Your task to perform on an android device: empty trash in google photos Image 0: 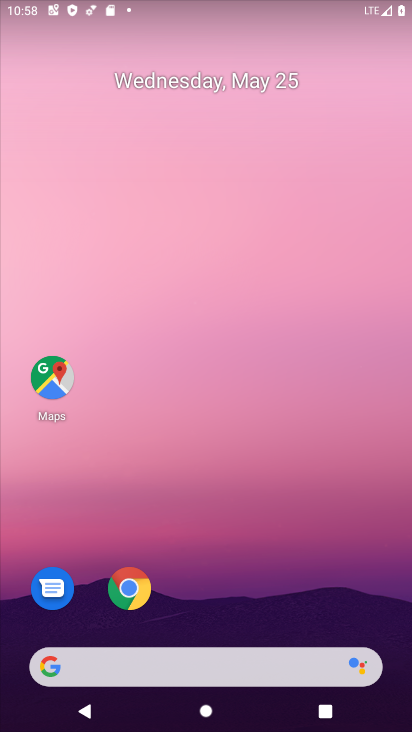
Step 0: drag from (158, 626) to (104, 212)
Your task to perform on an android device: empty trash in google photos Image 1: 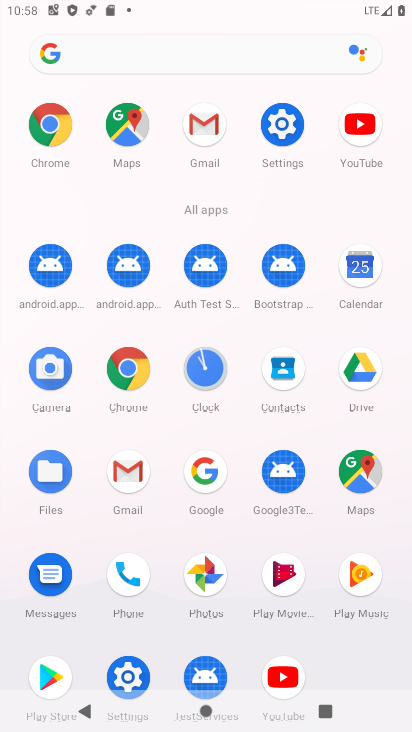
Step 1: click (201, 560)
Your task to perform on an android device: empty trash in google photos Image 2: 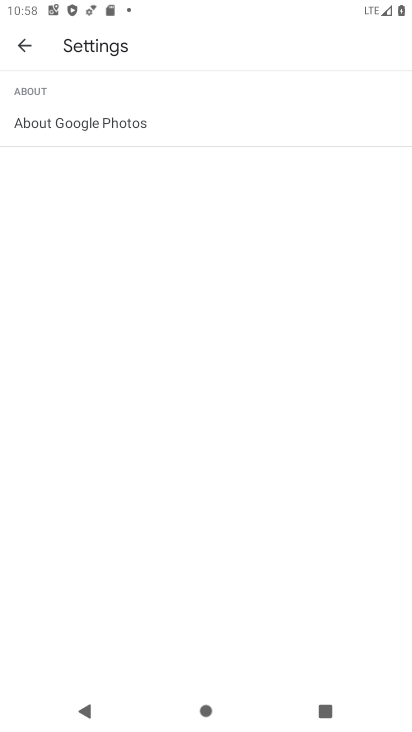
Step 2: click (33, 32)
Your task to perform on an android device: empty trash in google photos Image 3: 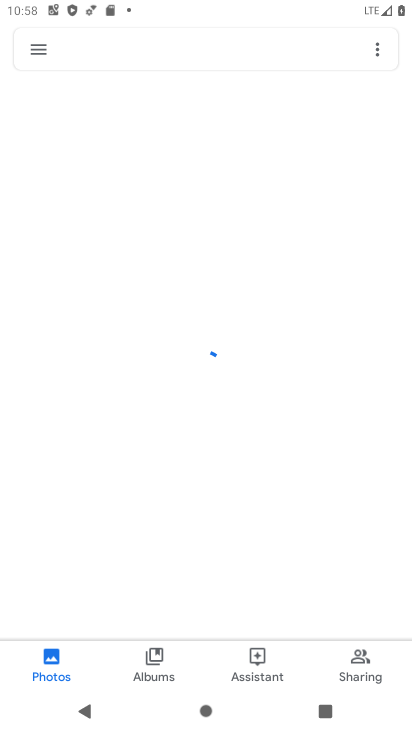
Step 3: click (39, 48)
Your task to perform on an android device: empty trash in google photos Image 4: 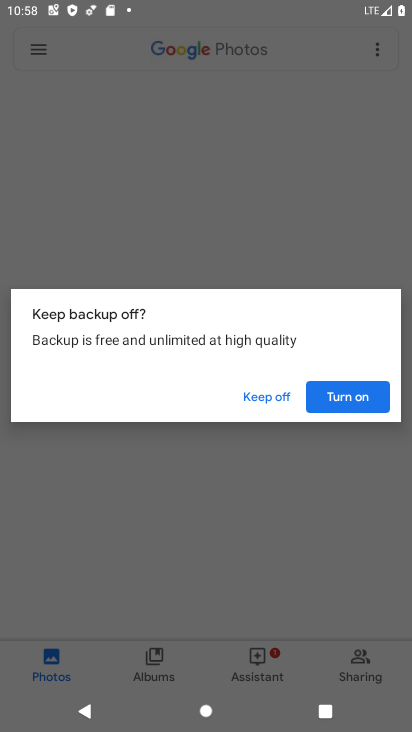
Step 4: click (329, 400)
Your task to perform on an android device: empty trash in google photos Image 5: 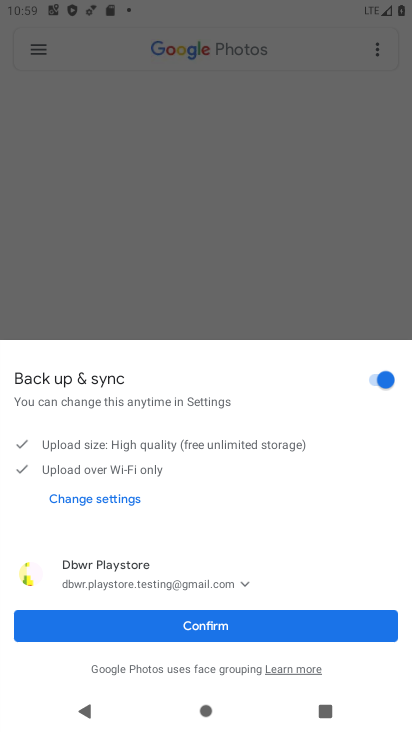
Step 5: click (45, 53)
Your task to perform on an android device: empty trash in google photos Image 6: 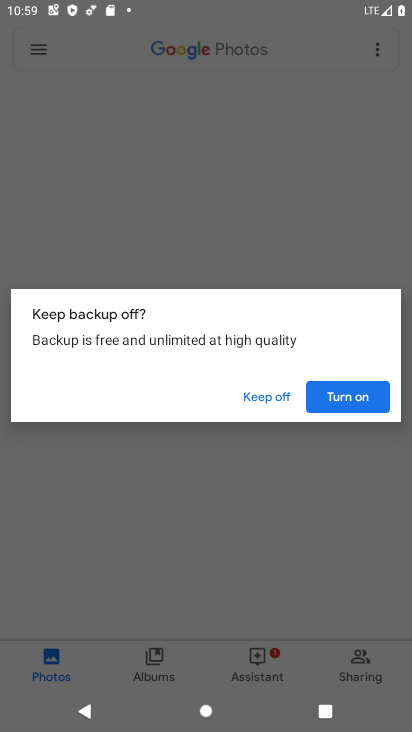
Step 6: click (347, 403)
Your task to perform on an android device: empty trash in google photos Image 7: 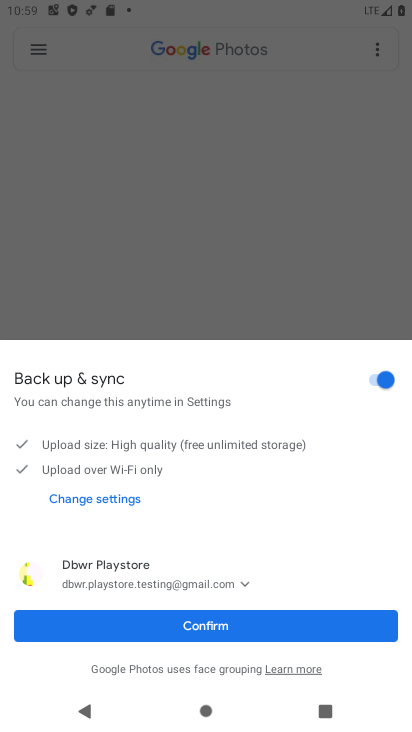
Step 7: click (196, 622)
Your task to perform on an android device: empty trash in google photos Image 8: 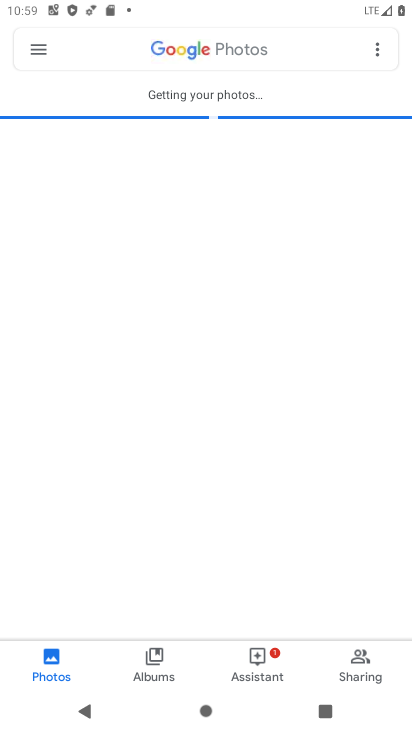
Step 8: click (35, 50)
Your task to perform on an android device: empty trash in google photos Image 9: 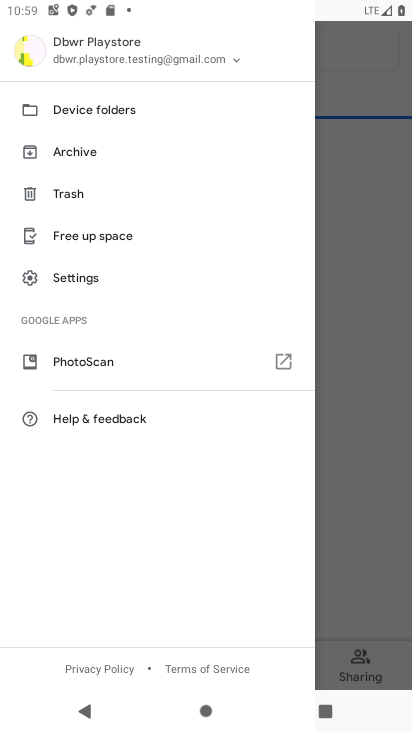
Step 9: click (83, 199)
Your task to perform on an android device: empty trash in google photos Image 10: 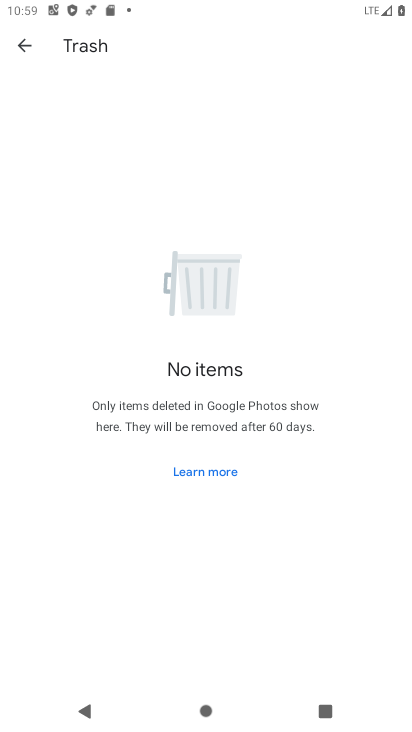
Step 10: task complete